Your task to perform on an android device: Go to Yahoo.com Image 0: 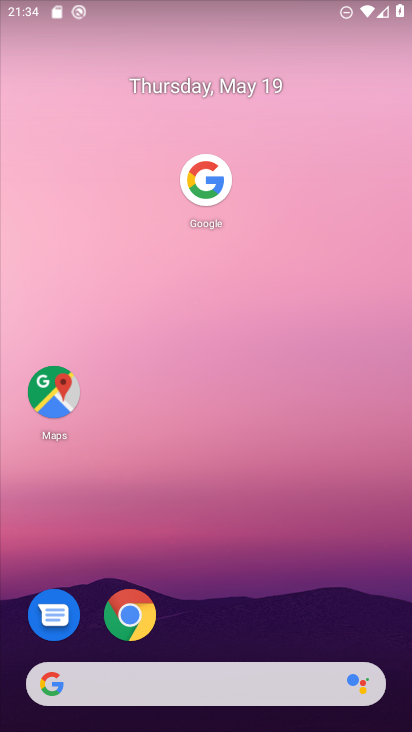
Step 0: click (124, 611)
Your task to perform on an android device: Go to Yahoo.com Image 1: 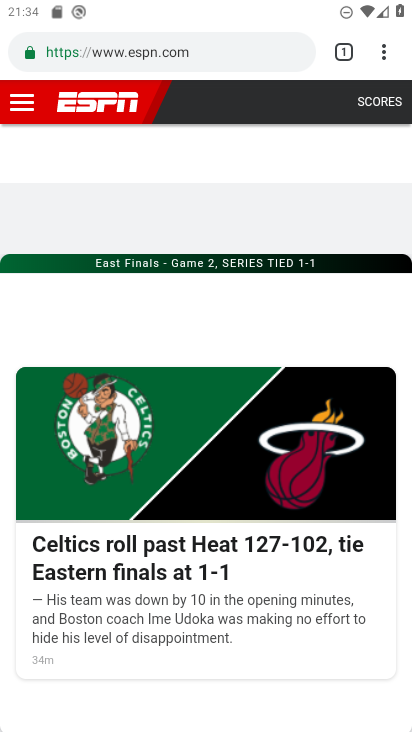
Step 1: click (241, 45)
Your task to perform on an android device: Go to Yahoo.com Image 2: 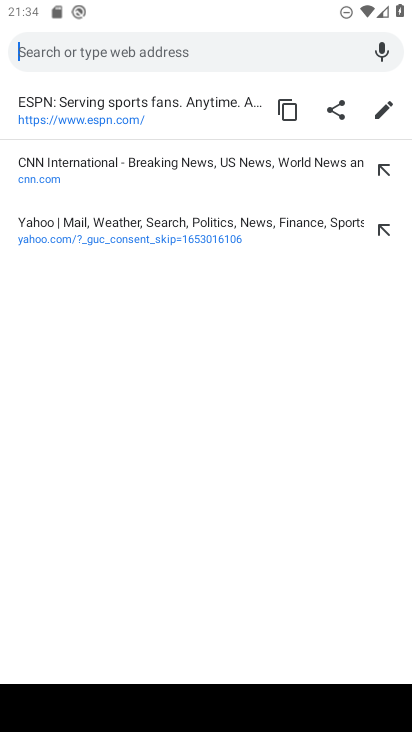
Step 2: type "yahoo.com"
Your task to perform on an android device: Go to Yahoo.com Image 3: 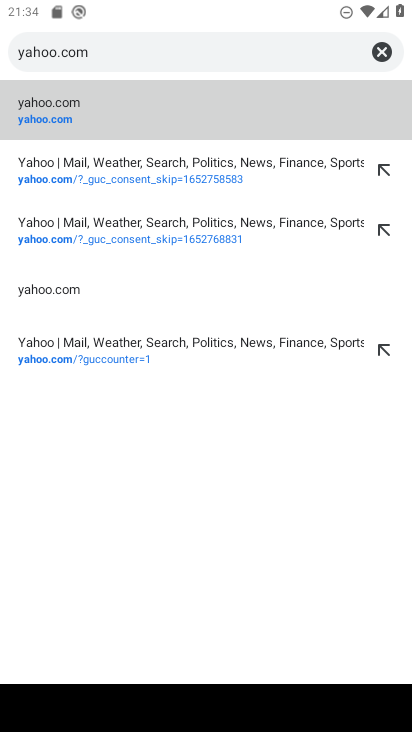
Step 3: click (129, 108)
Your task to perform on an android device: Go to Yahoo.com Image 4: 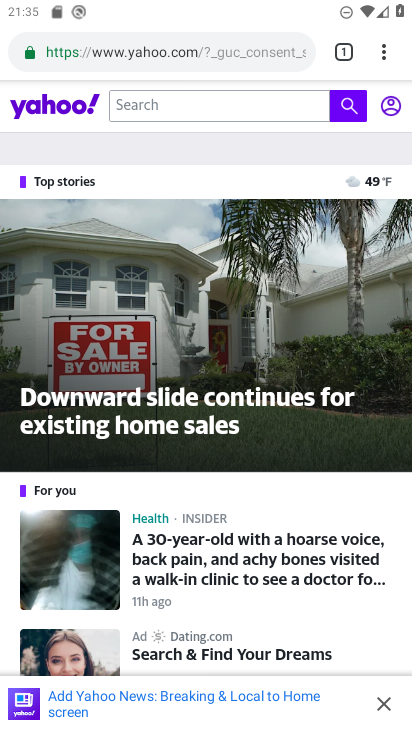
Step 4: task complete